Your task to perform on an android device: turn off translation in the chrome app Image 0: 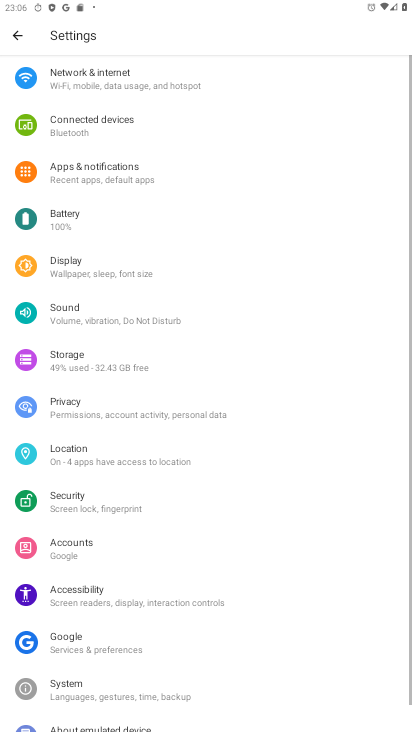
Step 0: press home button
Your task to perform on an android device: turn off translation in the chrome app Image 1: 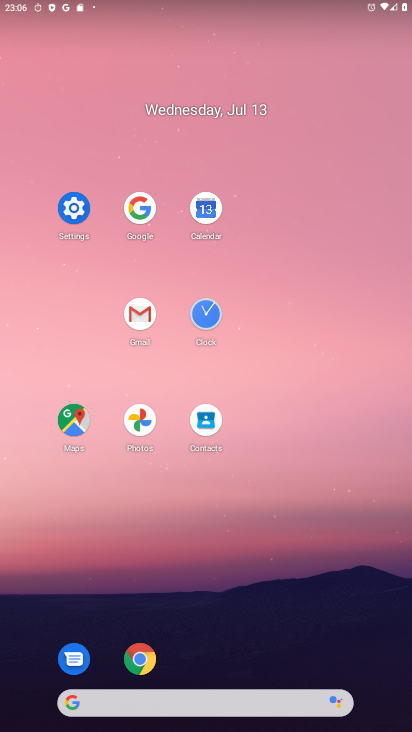
Step 1: click (139, 655)
Your task to perform on an android device: turn off translation in the chrome app Image 2: 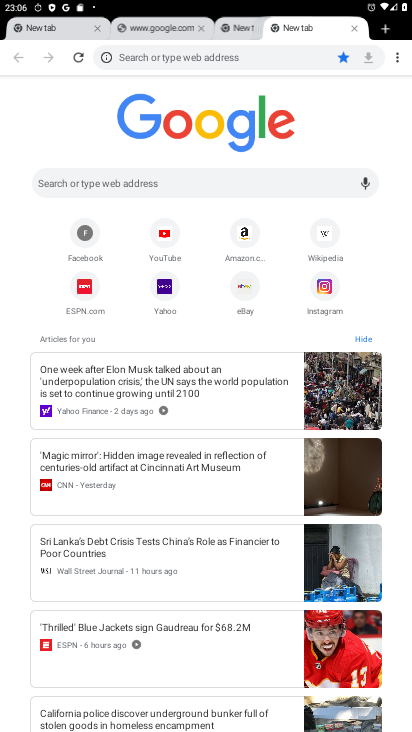
Step 2: click (403, 61)
Your task to perform on an android device: turn off translation in the chrome app Image 3: 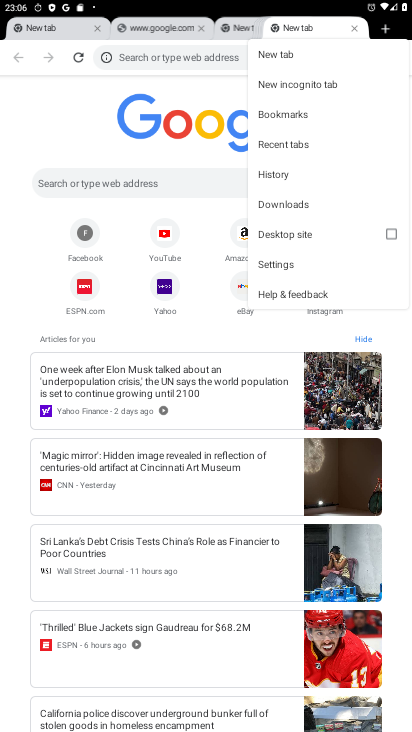
Step 3: click (288, 266)
Your task to perform on an android device: turn off translation in the chrome app Image 4: 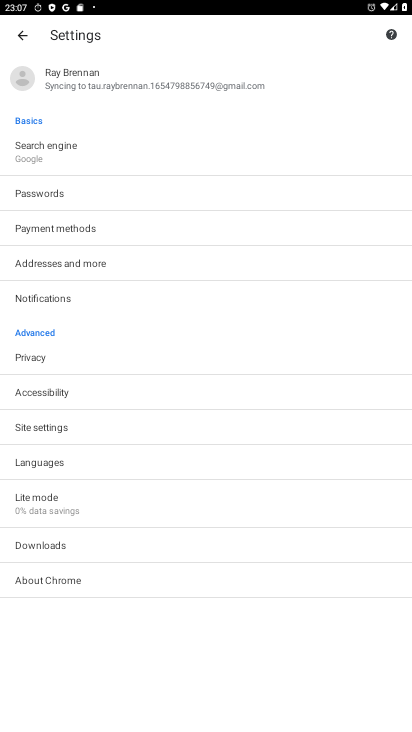
Step 4: click (102, 457)
Your task to perform on an android device: turn off translation in the chrome app Image 5: 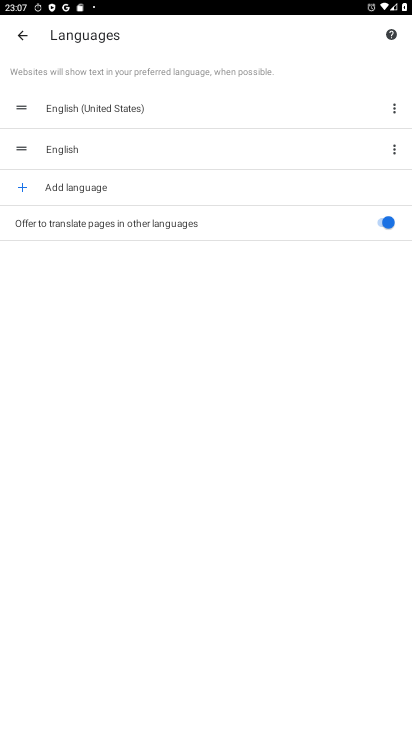
Step 5: click (391, 224)
Your task to perform on an android device: turn off translation in the chrome app Image 6: 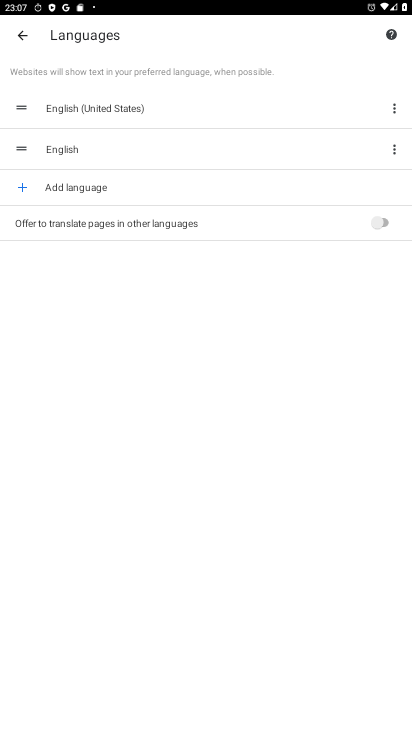
Step 6: task complete